Your task to perform on an android device: open chrome privacy settings Image 0: 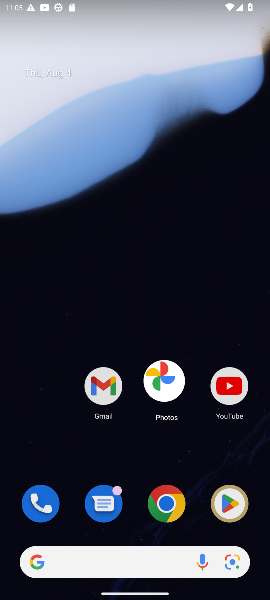
Step 0: click (89, 386)
Your task to perform on an android device: open chrome privacy settings Image 1: 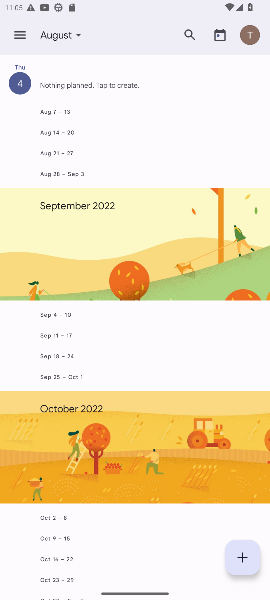
Step 1: press home button
Your task to perform on an android device: open chrome privacy settings Image 2: 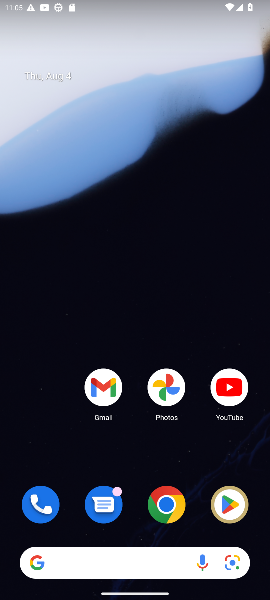
Step 2: click (159, 499)
Your task to perform on an android device: open chrome privacy settings Image 3: 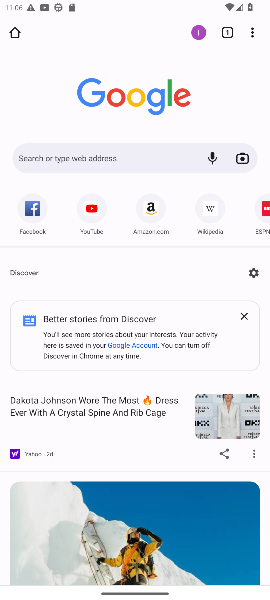
Step 3: click (252, 35)
Your task to perform on an android device: open chrome privacy settings Image 4: 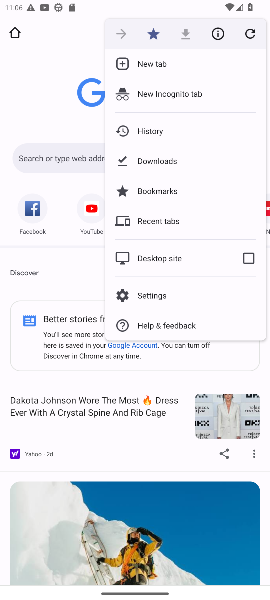
Step 4: click (152, 298)
Your task to perform on an android device: open chrome privacy settings Image 5: 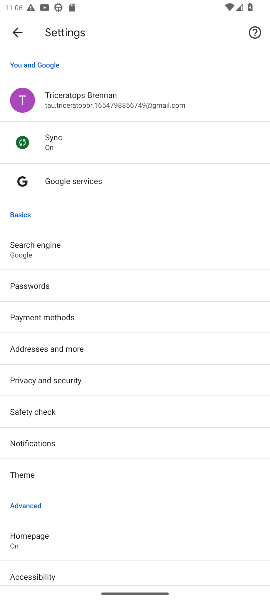
Step 5: drag from (45, 488) to (45, 210)
Your task to perform on an android device: open chrome privacy settings Image 6: 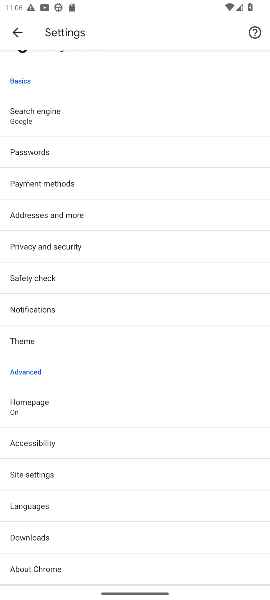
Step 6: click (75, 244)
Your task to perform on an android device: open chrome privacy settings Image 7: 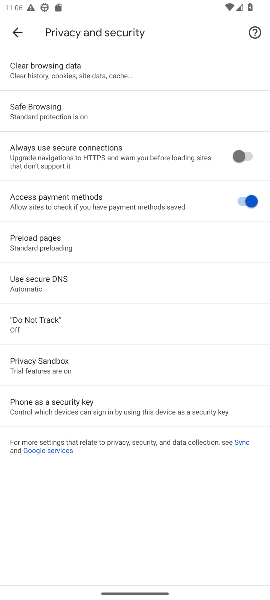
Step 7: task complete